Your task to perform on an android device: open app "WhatsApp Messenger" Image 0: 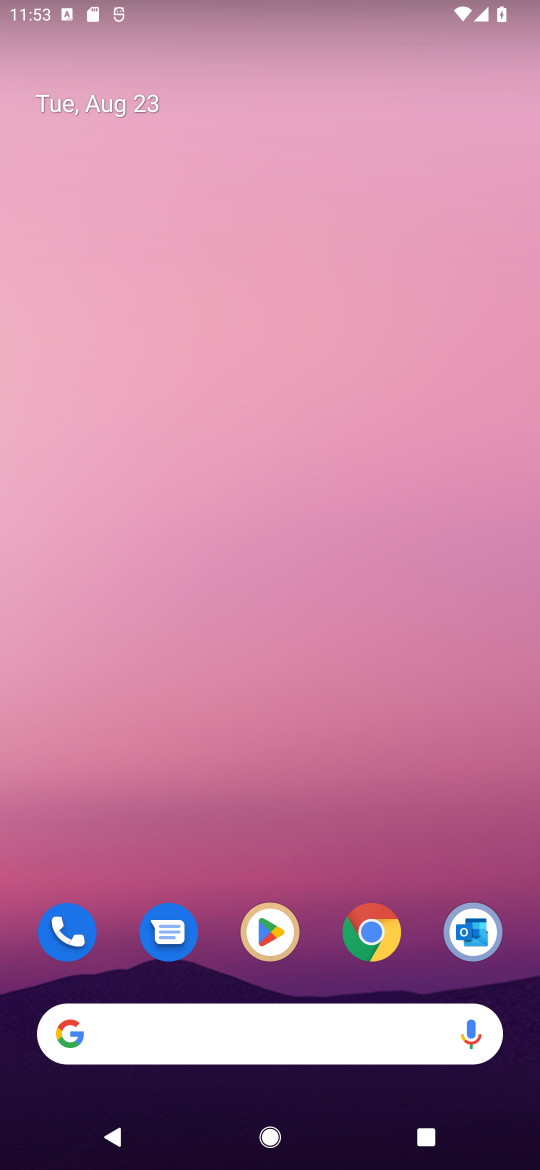
Step 0: click (258, 939)
Your task to perform on an android device: open app "WhatsApp Messenger" Image 1: 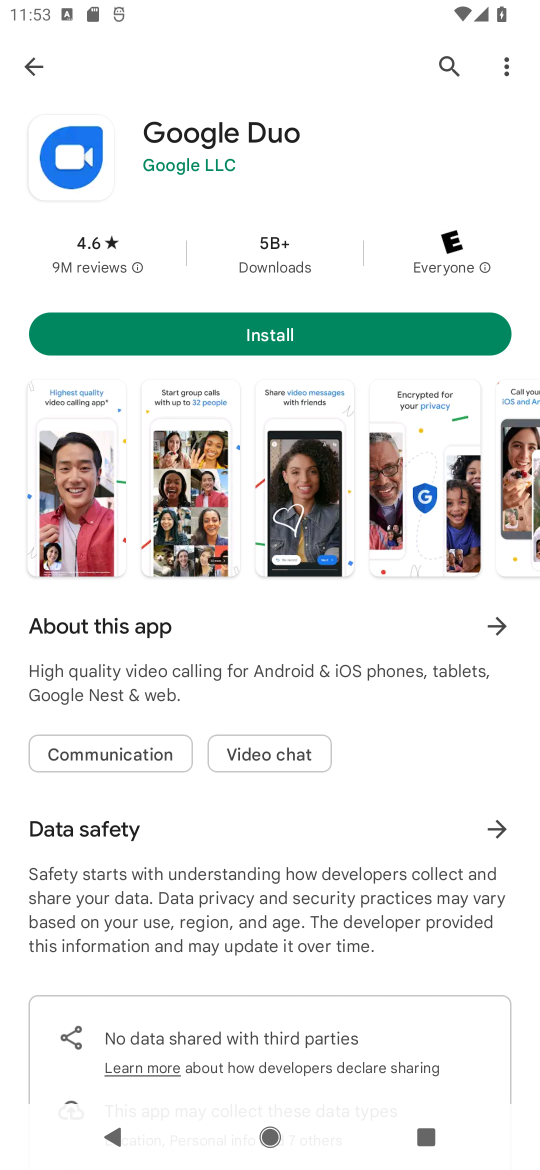
Step 1: click (446, 71)
Your task to perform on an android device: open app "WhatsApp Messenger" Image 2: 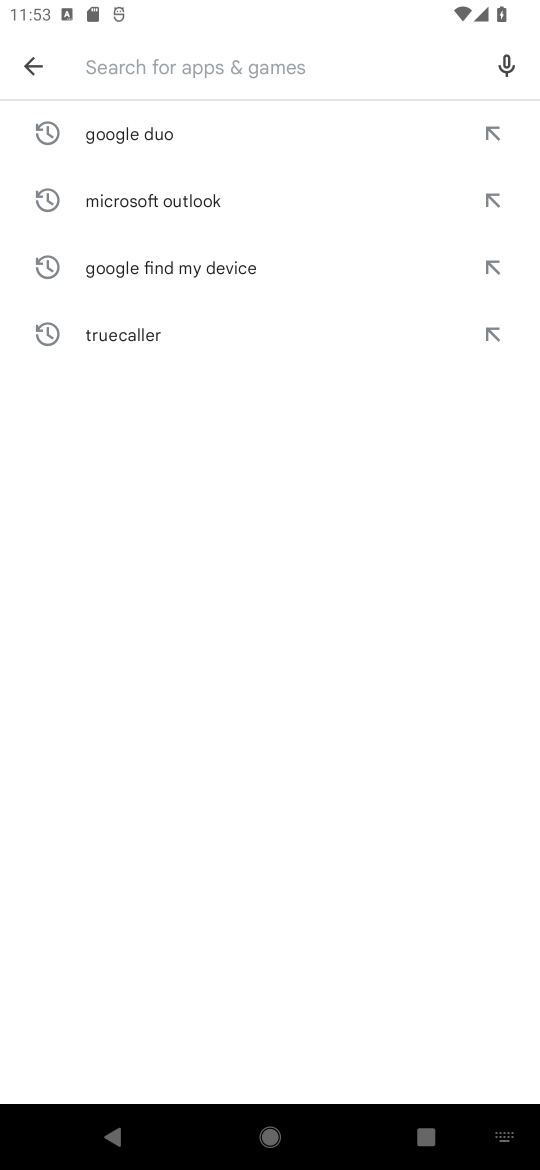
Step 2: click (137, 78)
Your task to perform on an android device: open app "WhatsApp Messenger" Image 3: 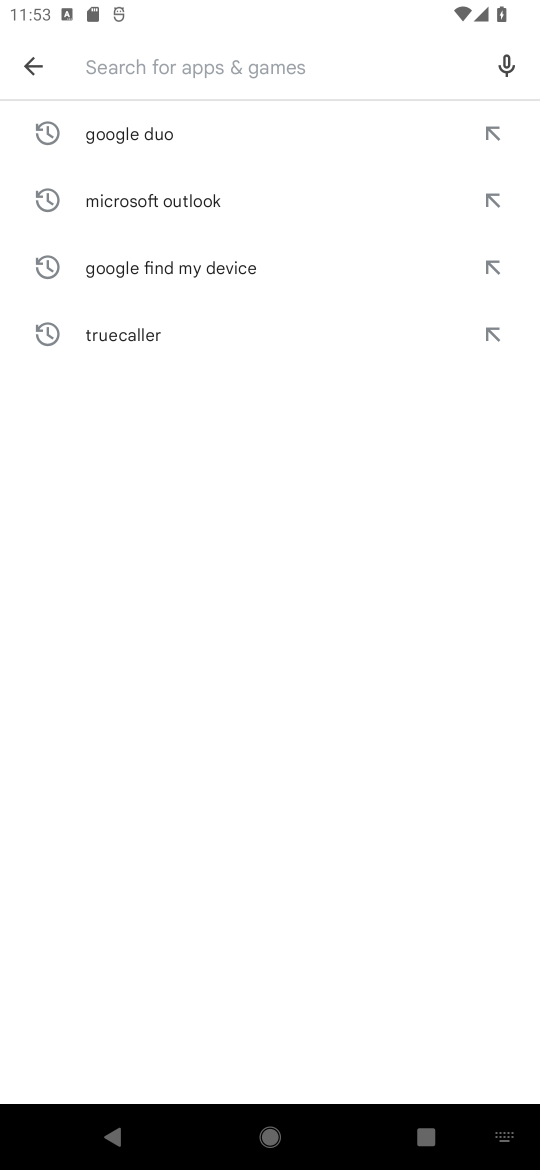
Step 3: type "WhatsApp Messenger"
Your task to perform on an android device: open app "WhatsApp Messenger" Image 4: 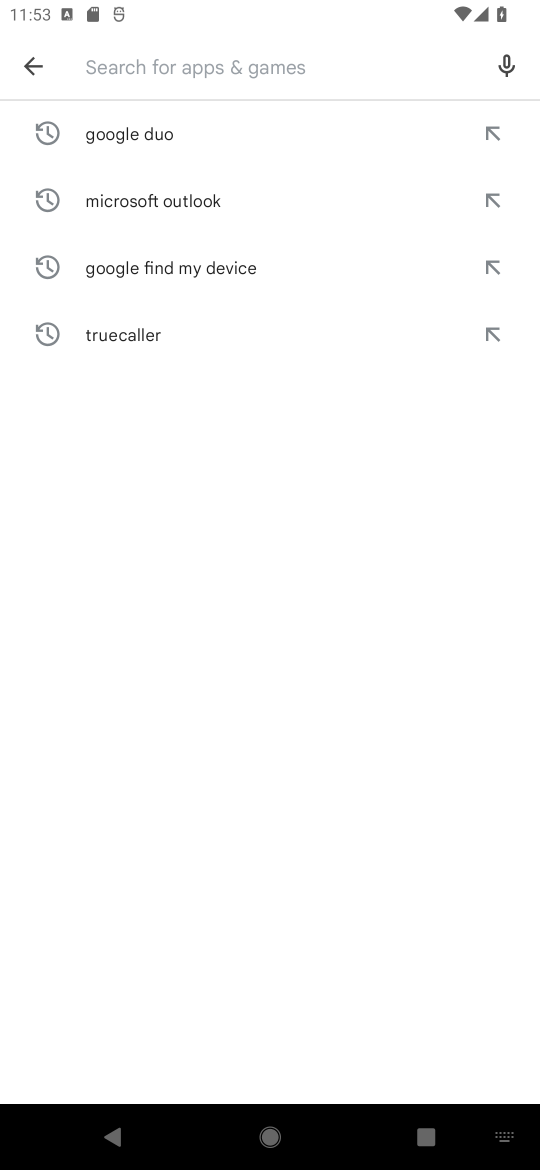
Step 4: click (421, 650)
Your task to perform on an android device: open app "WhatsApp Messenger" Image 5: 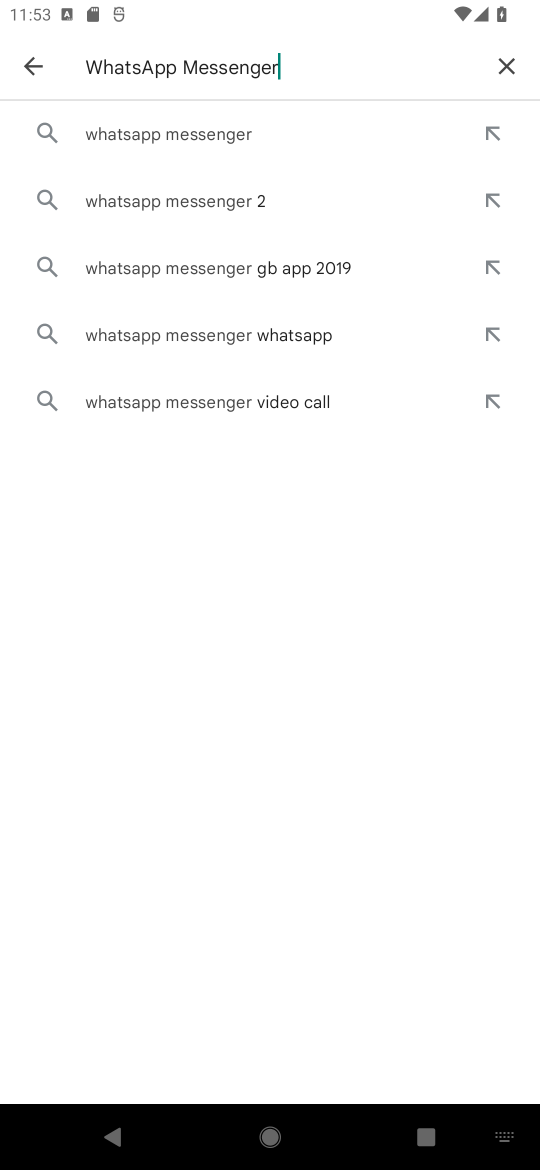
Step 5: click (216, 151)
Your task to perform on an android device: open app "WhatsApp Messenger" Image 6: 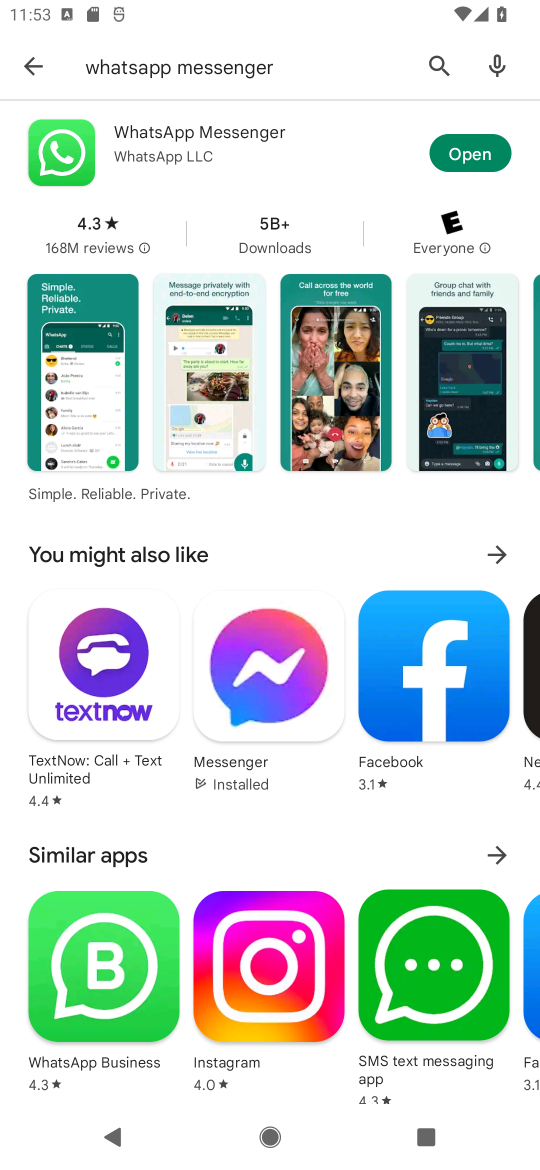
Step 6: click (455, 158)
Your task to perform on an android device: open app "WhatsApp Messenger" Image 7: 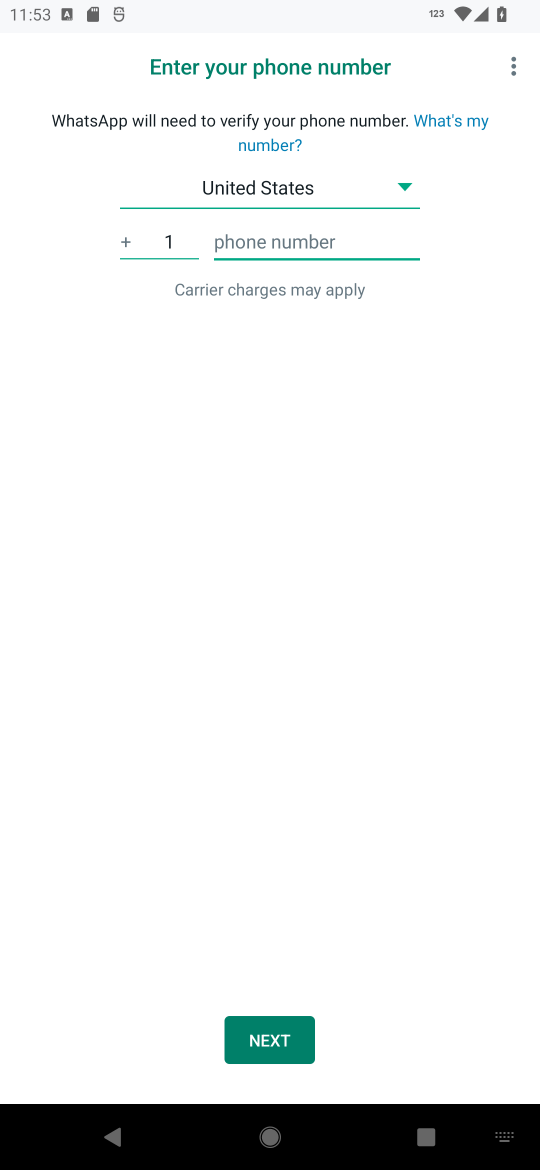
Step 7: click (272, 1033)
Your task to perform on an android device: open app "WhatsApp Messenger" Image 8: 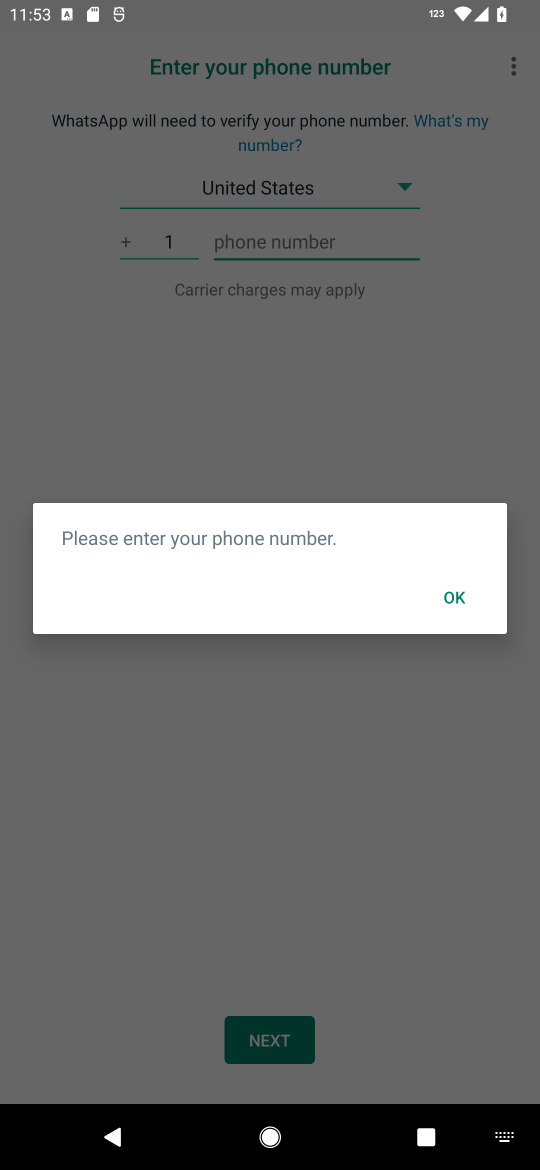
Step 8: click (467, 587)
Your task to perform on an android device: open app "WhatsApp Messenger" Image 9: 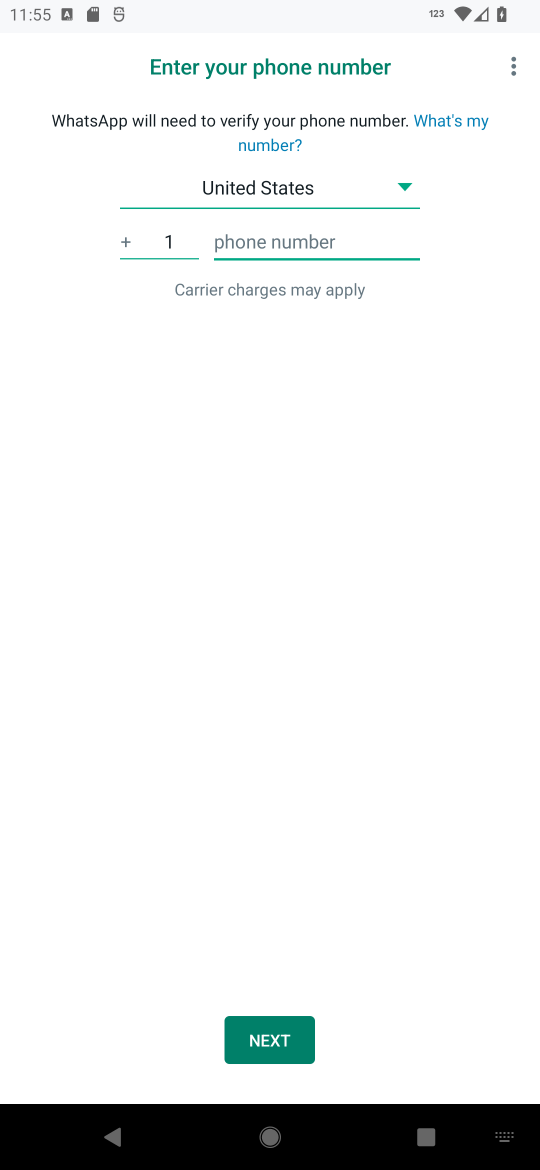
Step 9: task complete